Your task to perform on an android device: Add bose soundlink to the cart on ebay.com Image 0: 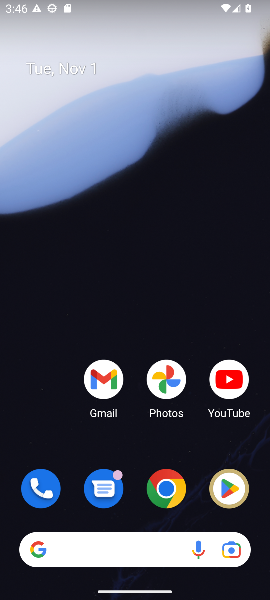
Step 0: drag from (127, 443) to (67, 39)
Your task to perform on an android device: Add bose soundlink to the cart on ebay.com Image 1: 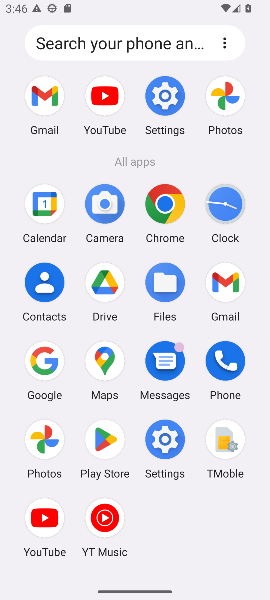
Step 1: click (163, 196)
Your task to perform on an android device: Add bose soundlink to the cart on ebay.com Image 2: 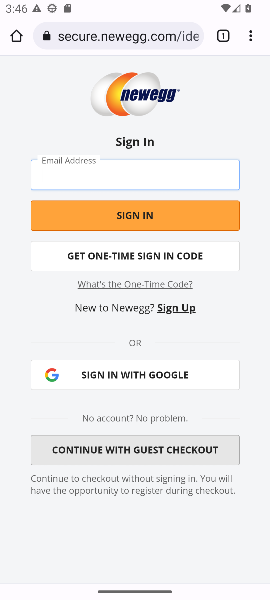
Step 2: click (70, 29)
Your task to perform on an android device: Add bose soundlink to the cart on ebay.com Image 3: 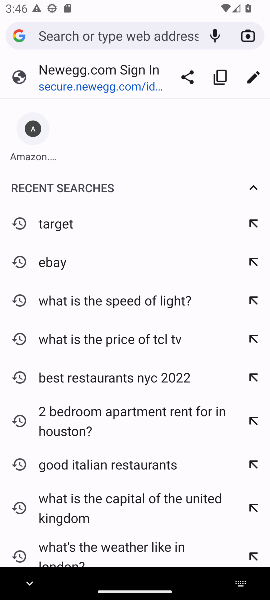
Step 3: click (55, 266)
Your task to perform on an android device: Add bose soundlink to the cart on ebay.com Image 4: 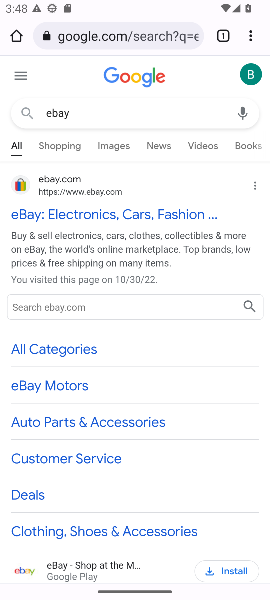
Step 4: click (30, 212)
Your task to perform on an android device: Add bose soundlink to the cart on ebay.com Image 5: 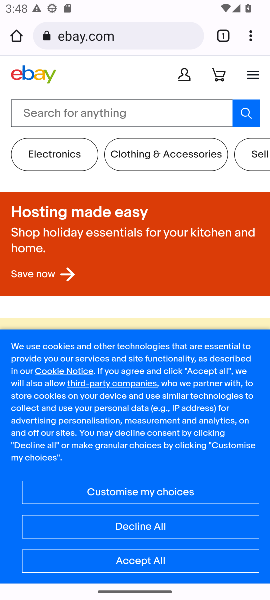
Step 5: click (141, 565)
Your task to perform on an android device: Add bose soundlink to the cart on ebay.com Image 6: 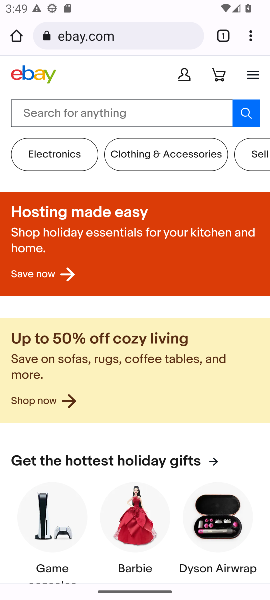
Step 6: click (71, 107)
Your task to perform on an android device: Add bose soundlink to the cart on ebay.com Image 7: 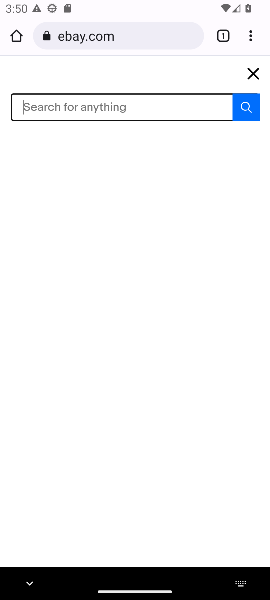
Step 7: type "bose soundlink"
Your task to perform on an android device: Add bose soundlink to the cart on ebay.com Image 8: 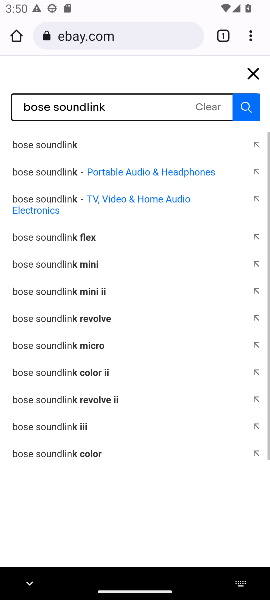
Step 8: click (67, 152)
Your task to perform on an android device: Add bose soundlink to the cart on ebay.com Image 9: 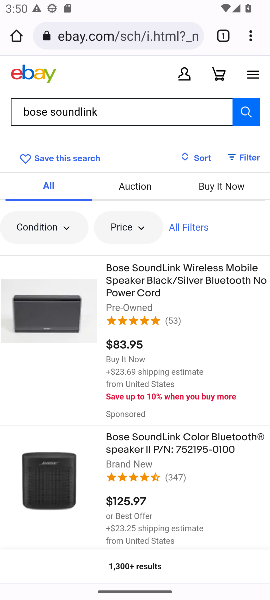
Step 9: click (163, 280)
Your task to perform on an android device: Add bose soundlink to the cart on ebay.com Image 10: 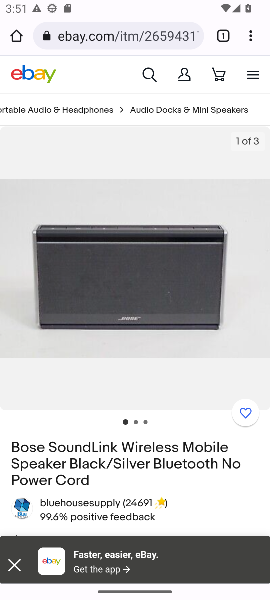
Step 10: drag from (137, 480) to (133, 69)
Your task to perform on an android device: Add bose soundlink to the cart on ebay.com Image 11: 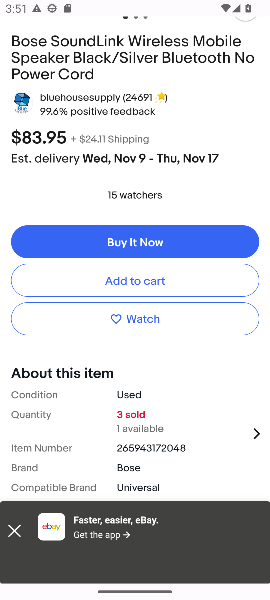
Step 11: click (116, 277)
Your task to perform on an android device: Add bose soundlink to the cart on ebay.com Image 12: 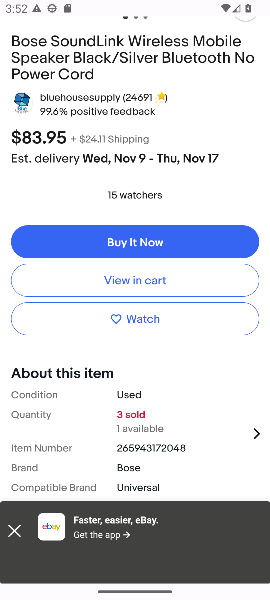
Step 12: click (134, 273)
Your task to perform on an android device: Add bose soundlink to the cart on ebay.com Image 13: 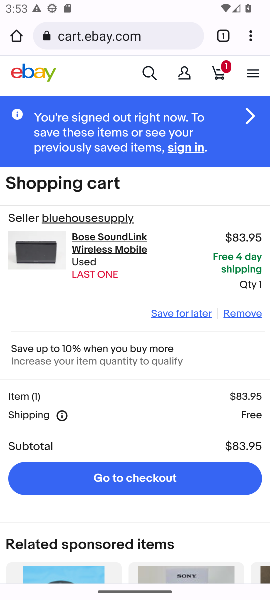
Step 13: click (144, 473)
Your task to perform on an android device: Add bose soundlink to the cart on ebay.com Image 14: 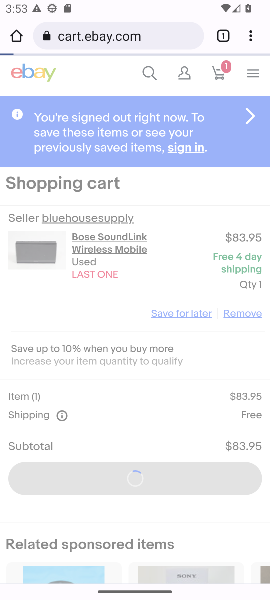
Step 14: task complete